Your task to perform on an android device: Open eBay Image 0: 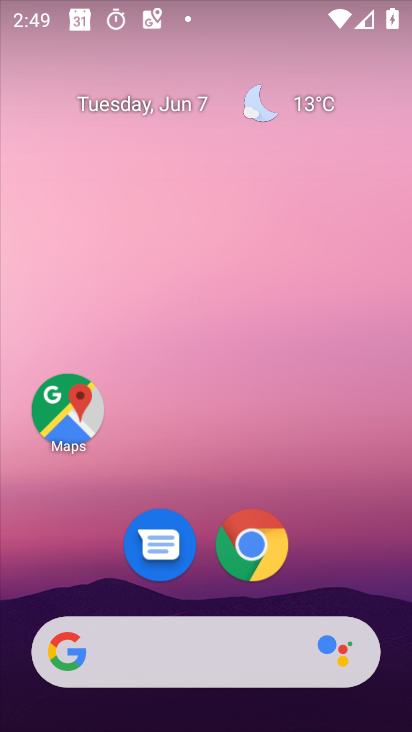
Step 0: click (245, 561)
Your task to perform on an android device: Open eBay Image 1: 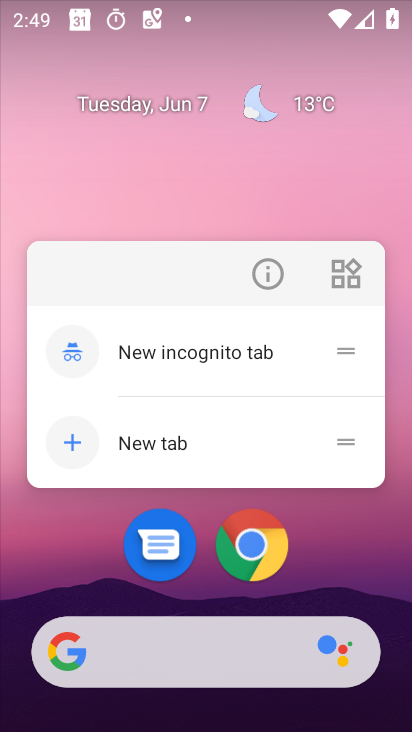
Step 1: click (244, 569)
Your task to perform on an android device: Open eBay Image 2: 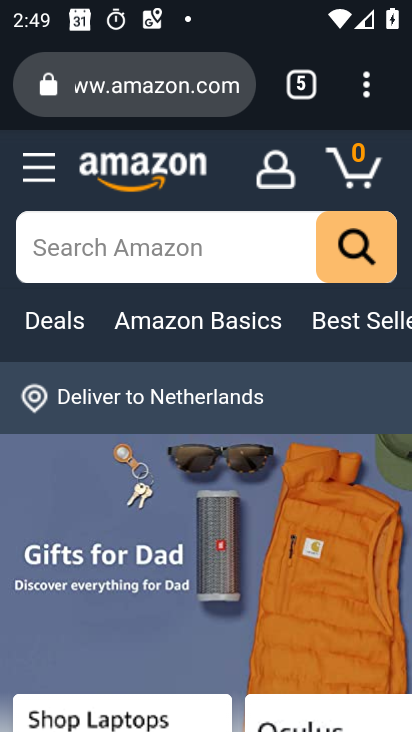
Step 2: click (295, 79)
Your task to perform on an android device: Open eBay Image 3: 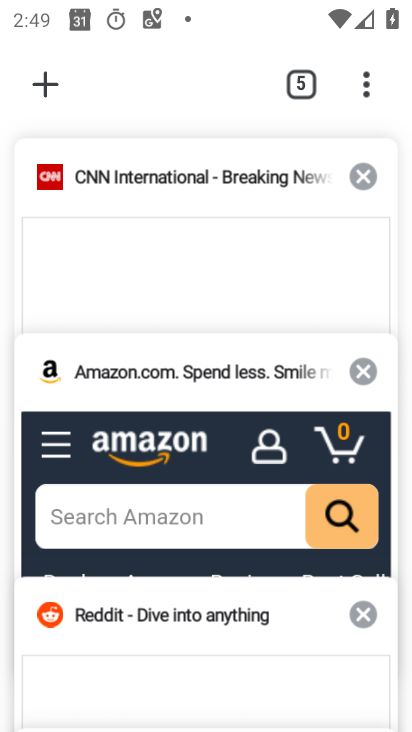
Step 3: drag from (183, 246) to (243, 79)
Your task to perform on an android device: Open eBay Image 4: 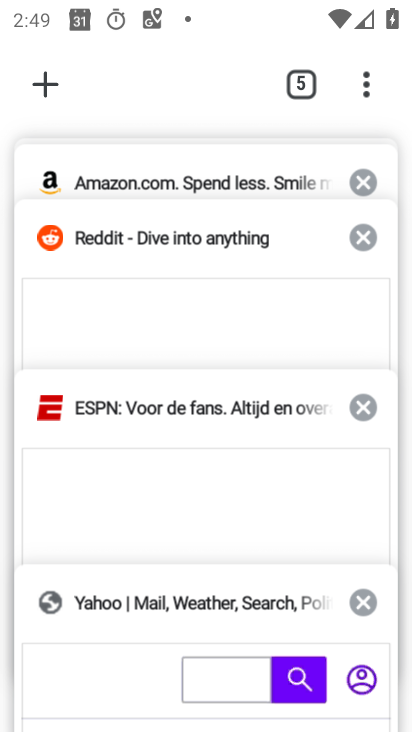
Step 4: click (45, 83)
Your task to perform on an android device: Open eBay Image 5: 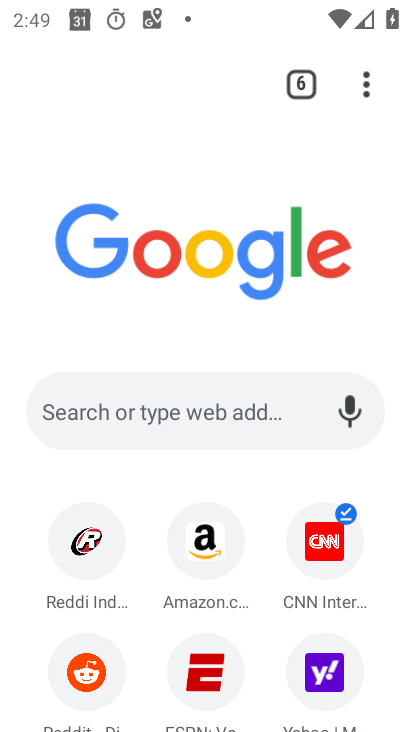
Step 5: click (191, 402)
Your task to perform on an android device: Open eBay Image 6: 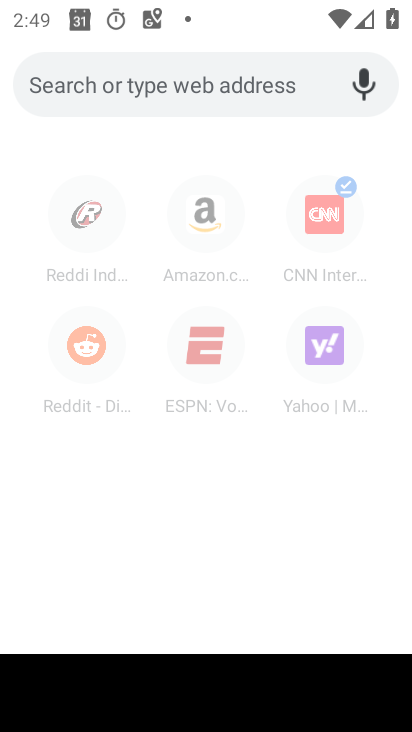
Step 6: type "eBay"
Your task to perform on an android device: Open eBay Image 7: 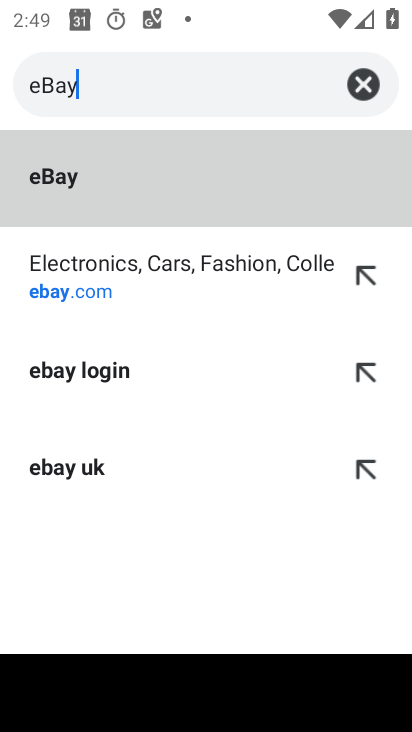
Step 7: click (128, 197)
Your task to perform on an android device: Open eBay Image 8: 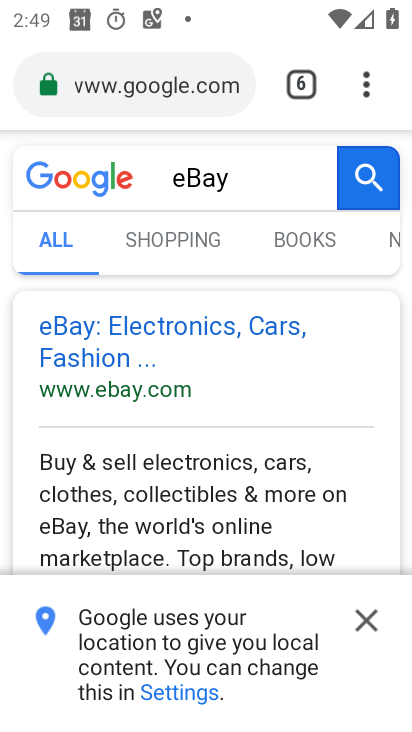
Step 8: click (132, 344)
Your task to perform on an android device: Open eBay Image 9: 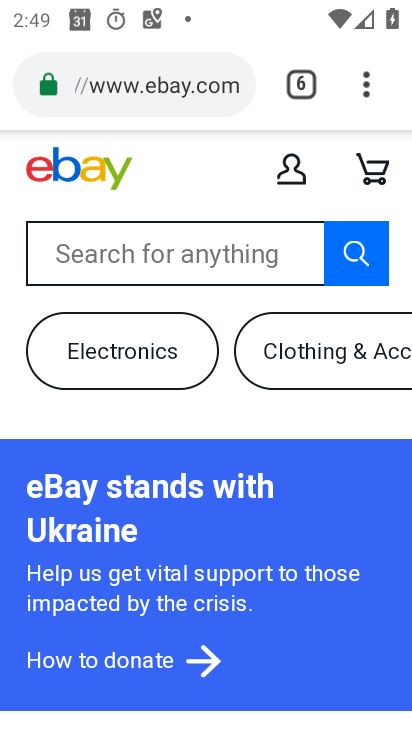
Step 9: task complete